Your task to perform on an android device: Open CNN.com Image 0: 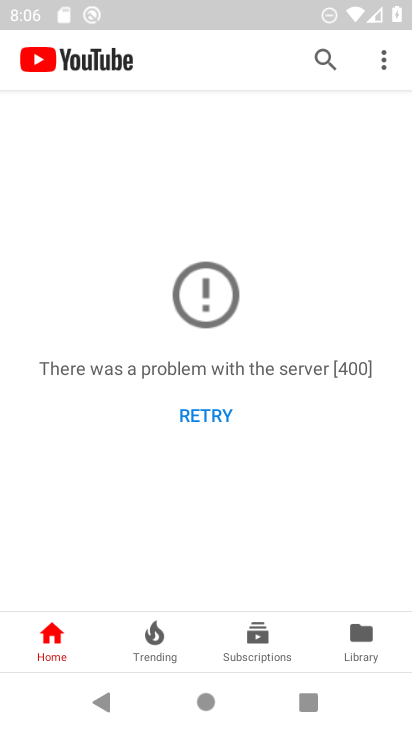
Step 0: press home button
Your task to perform on an android device: Open CNN.com Image 1: 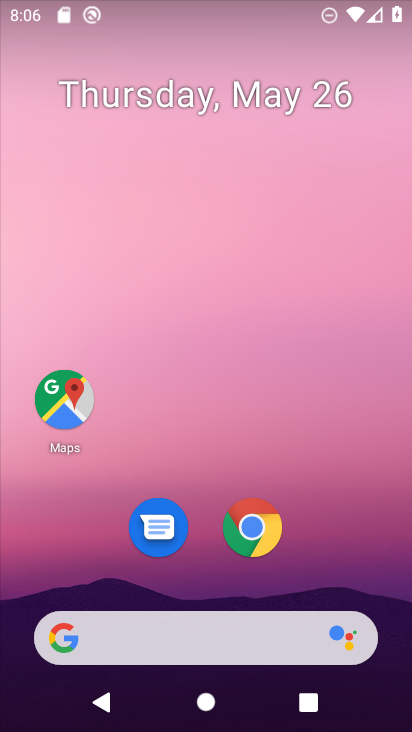
Step 1: click (252, 532)
Your task to perform on an android device: Open CNN.com Image 2: 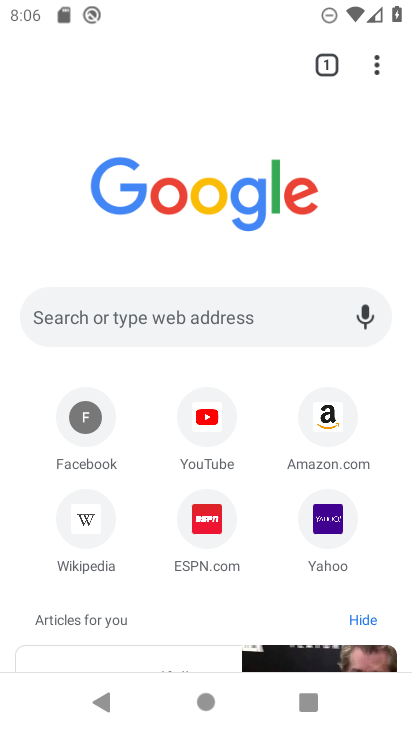
Step 2: click (149, 308)
Your task to perform on an android device: Open CNN.com Image 3: 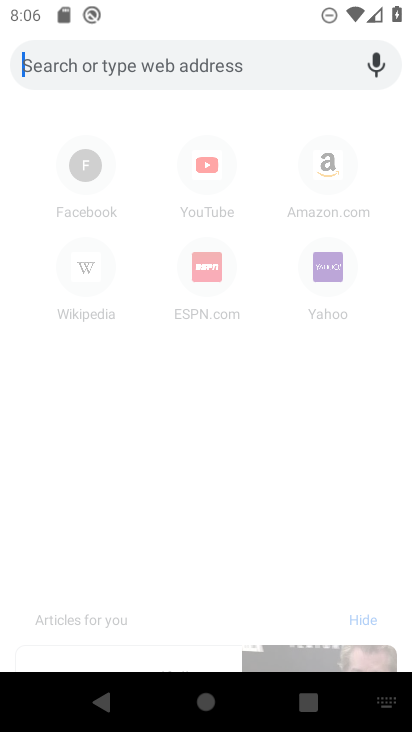
Step 3: type "CNN.com"
Your task to perform on an android device: Open CNN.com Image 4: 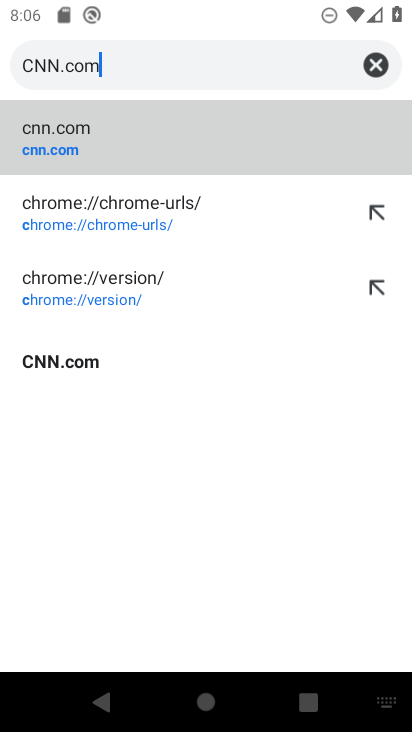
Step 4: type ""
Your task to perform on an android device: Open CNN.com Image 5: 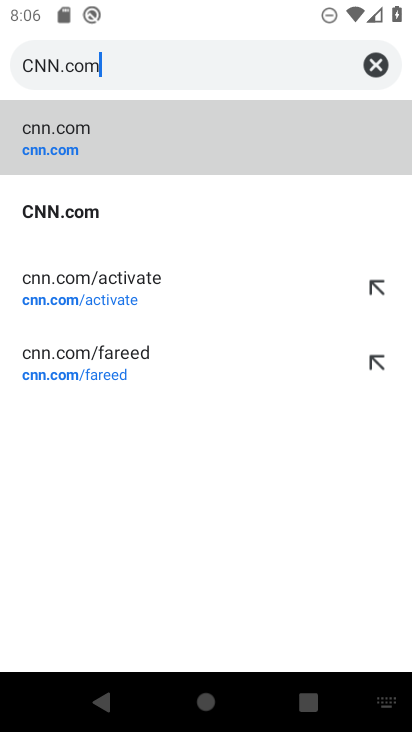
Step 5: click (36, 209)
Your task to perform on an android device: Open CNN.com Image 6: 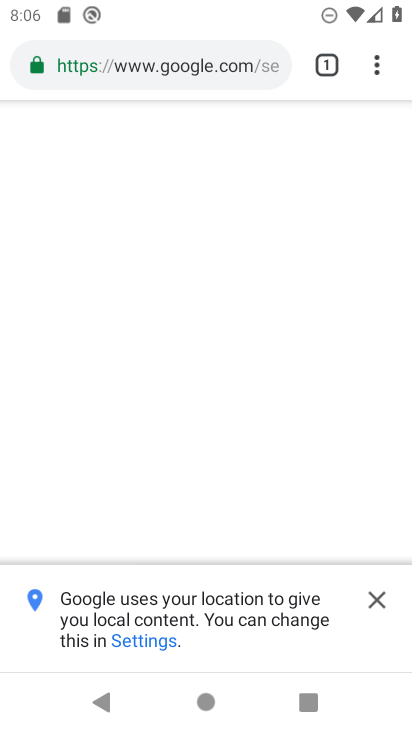
Step 6: click (377, 602)
Your task to perform on an android device: Open CNN.com Image 7: 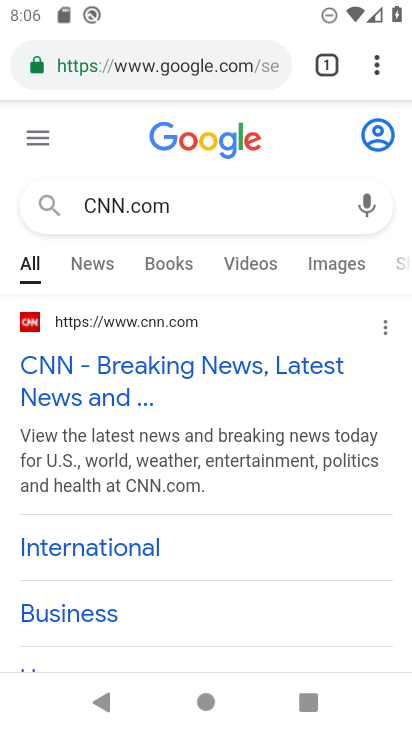
Step 7: click (83, 386)
Your task to perform on an android device: Open CNN.com Image 8: 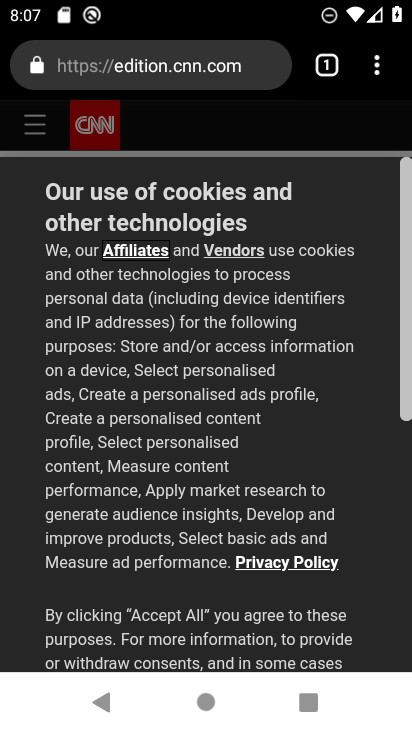
Step 8: task complete